Your task to perform on an android device: Go to location settings Image 0: 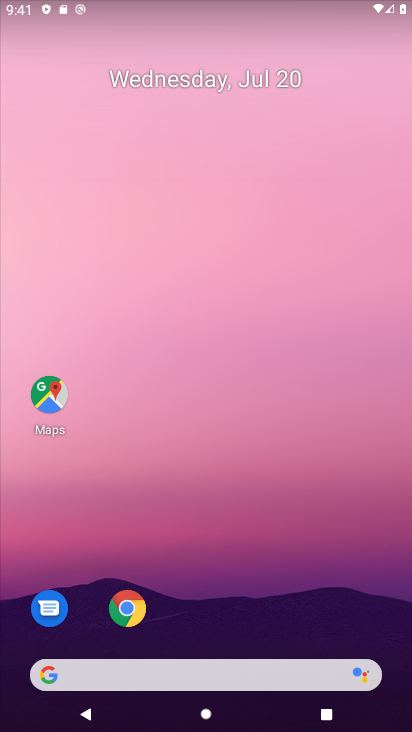
Step 0: drag from (230, 693) to (185, 365)
Your task to perform on an android device: Go to location settings Image 1: 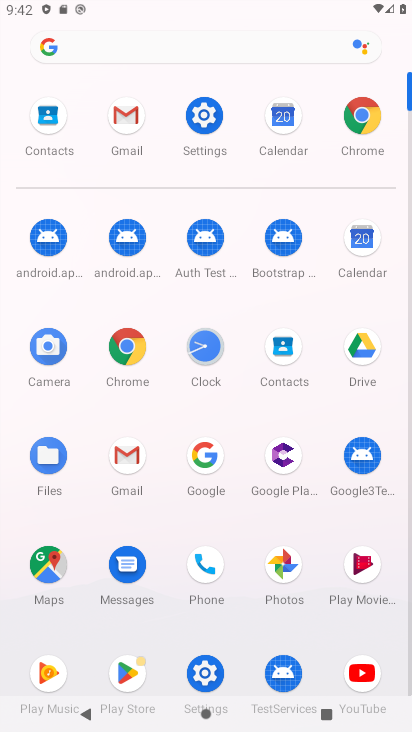
Step 1: click (195, 127)
Your task to perform on an android device: Go to location settings Image 2: 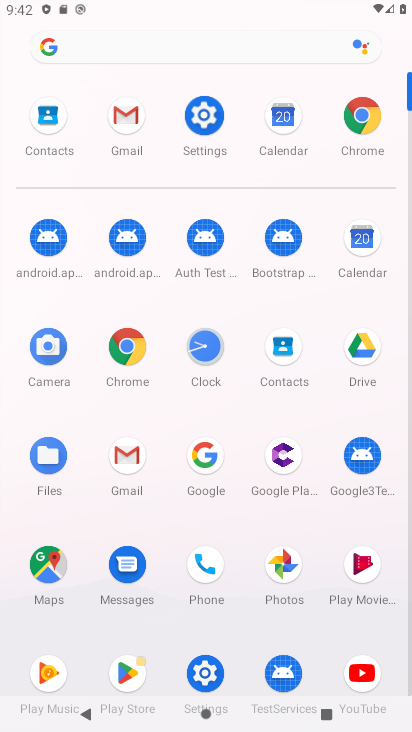
Step 2: click (200, 125)
Your task to perform on an android device: Go to location settings Image 3: 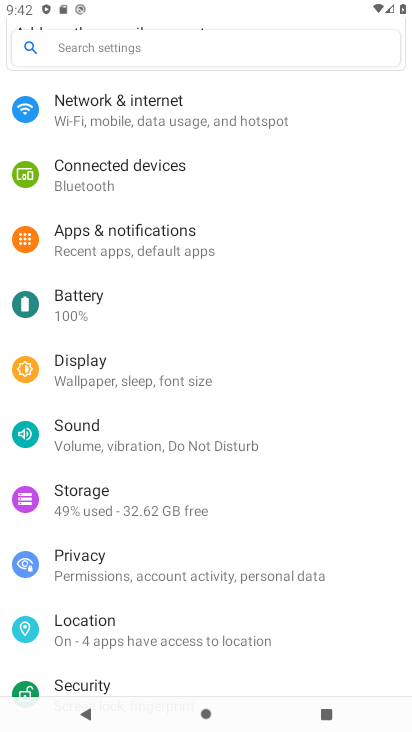
Step 3: click (107, 624)
Your task to perform on an android device: Go to location settings Image 4: 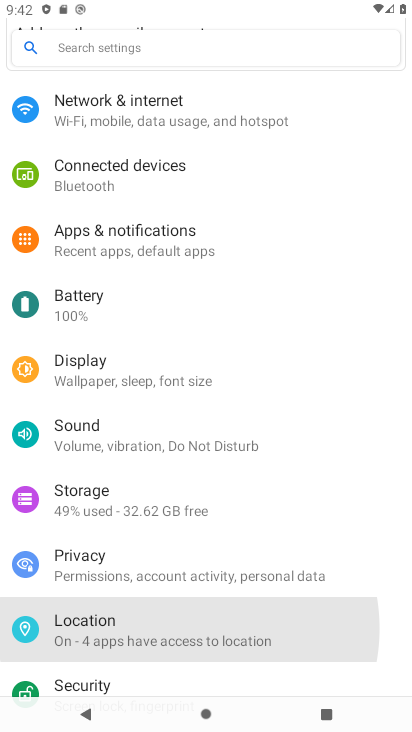
Step 4: click (105, 623)
Your task to perform on an android device: Go to location settings Image 5: 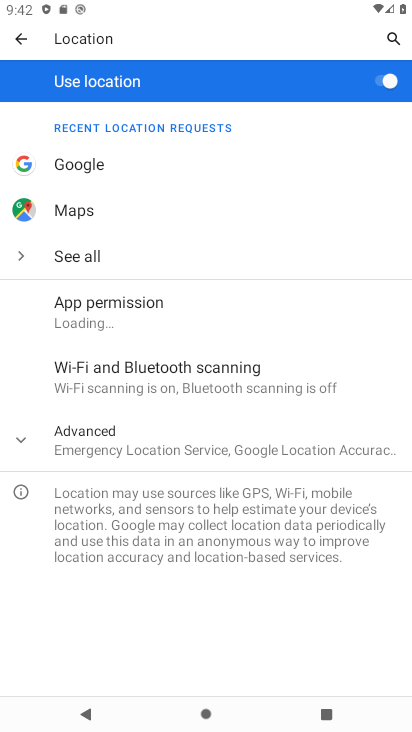
Step 5: task complete